Your task to perform on an android device: empty trash in the gmail app Image 0: 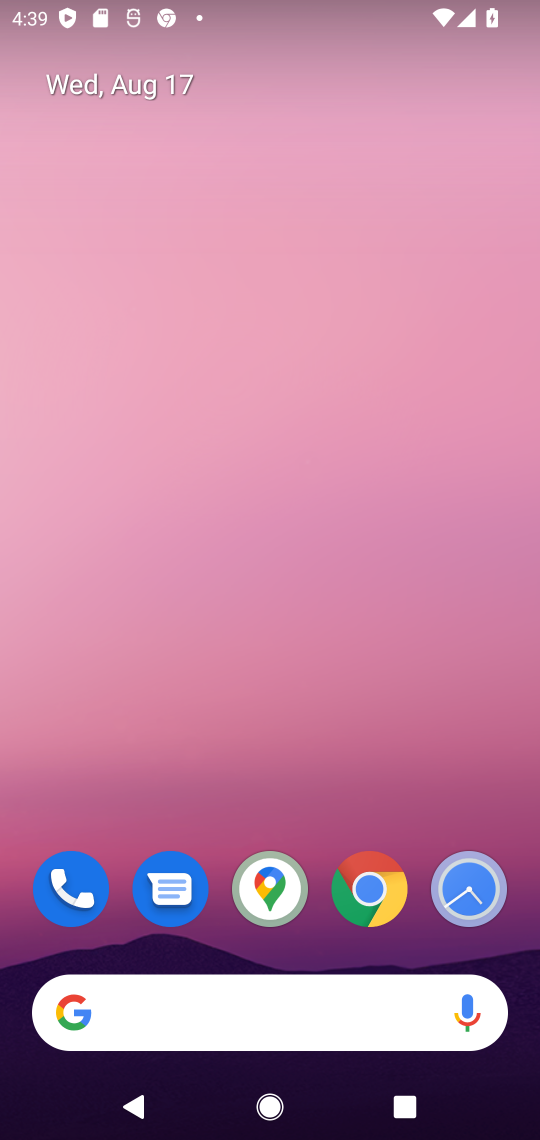
Step 0: drag from (329, 801) to (169, 132)
Your task to perform on an android device: empty trash in the gmail app Image 1: 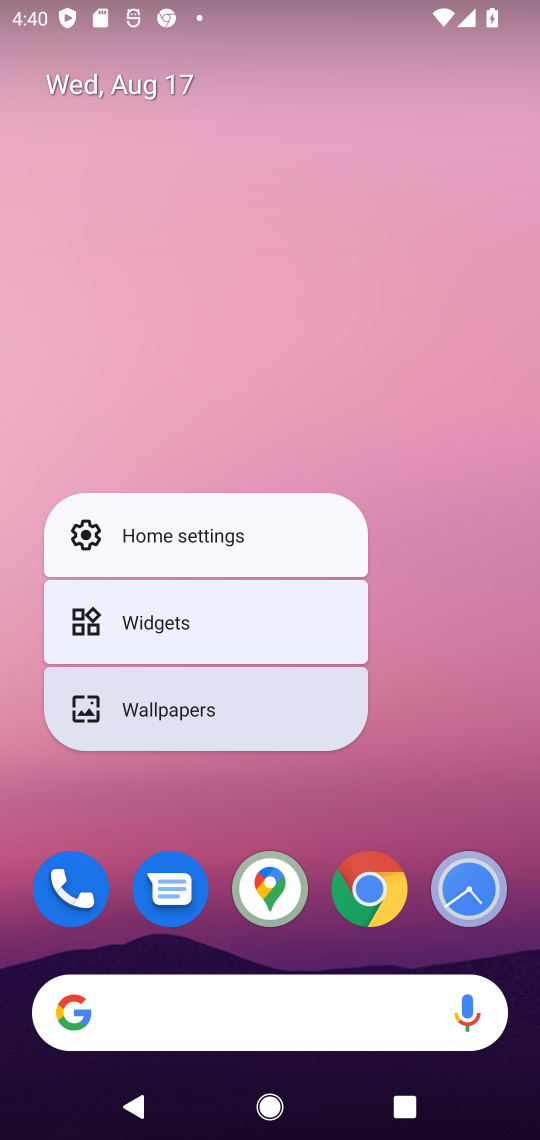
Step 1: click (284, 298)
Your task to perform on an android device: empty trash in the gmail app Image 2: 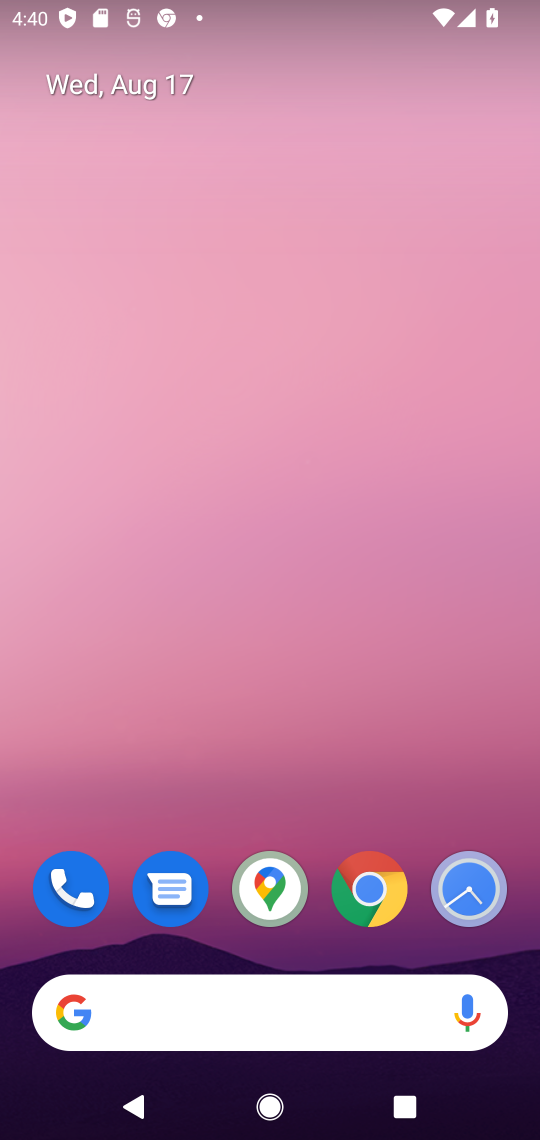
Step 2: drag from (312, 832) to (230, 143)
Your task to perform on an android device: empty trash in the gmail app Image 3: 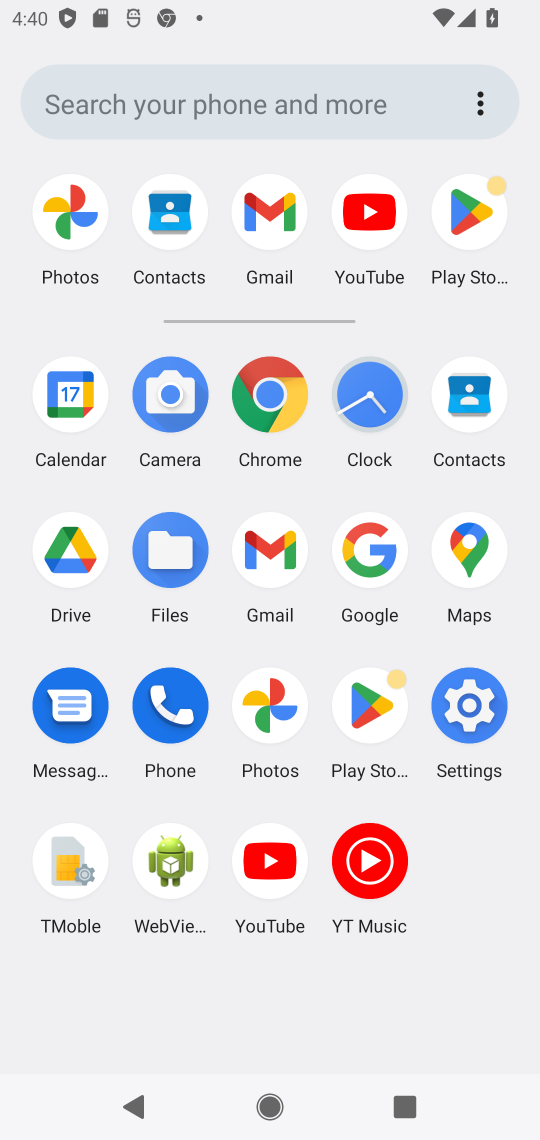
Step 3: click (269, 542)
Your task to perform on an android device: empty trash in the gmail app Image 4: 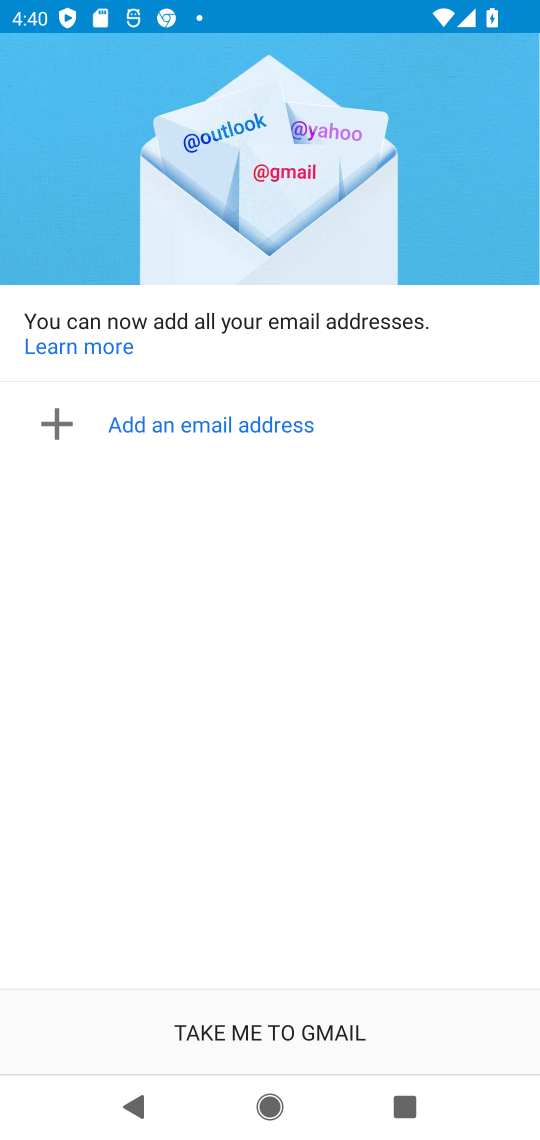
Step 4: click (301, 1025)
Your task to perform on an android device: empty trash in the gmail app Image 5: 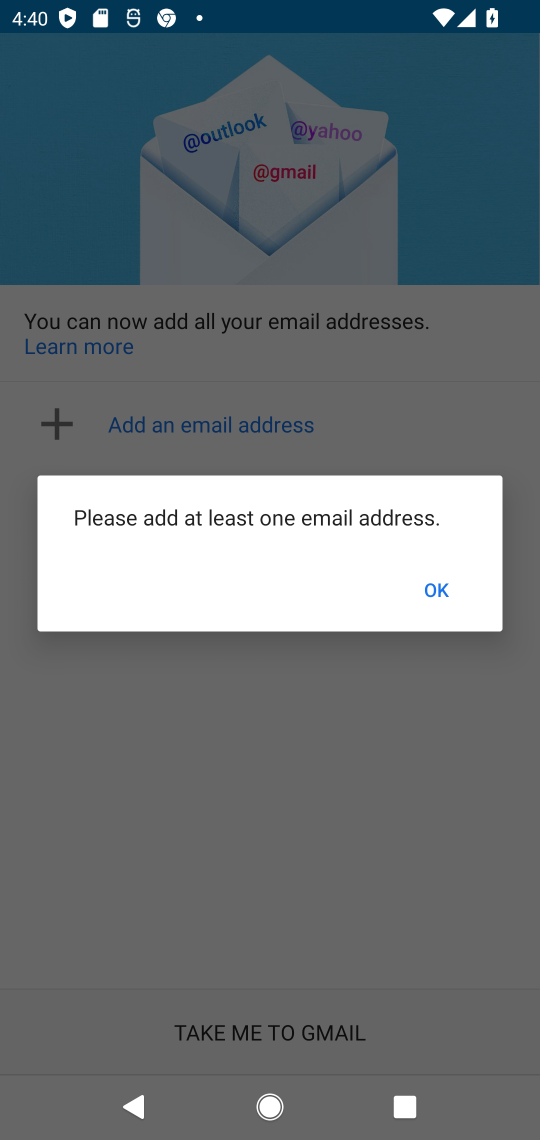
Step 5: click (439, 593)
Your task to perform on an android device: empty trash in the gmail app Image 6: 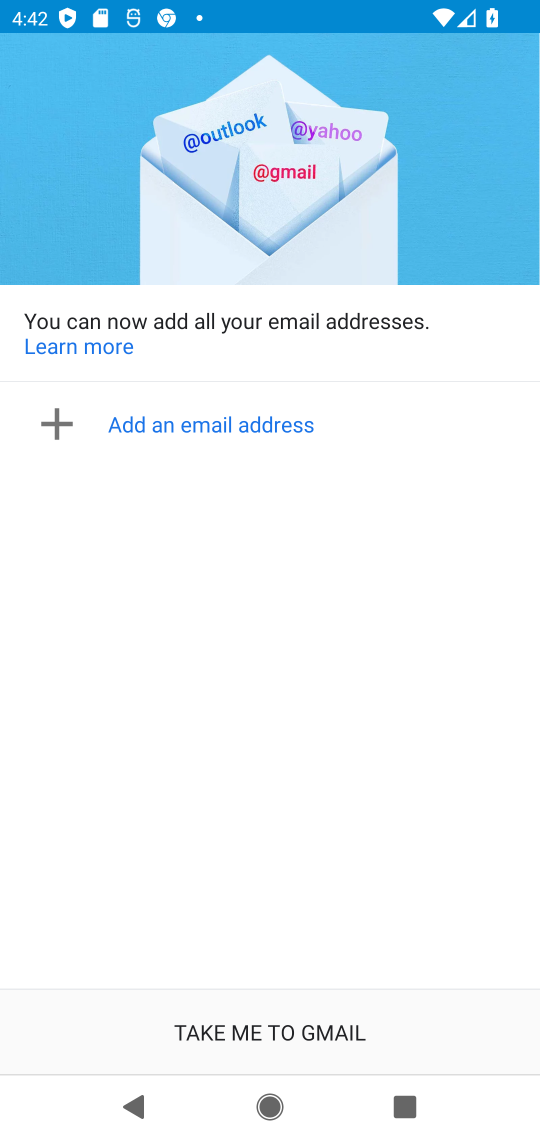
Step 6: task complete